Your task to perform on an android device: What's the weather going to be this weekend? Image 0: 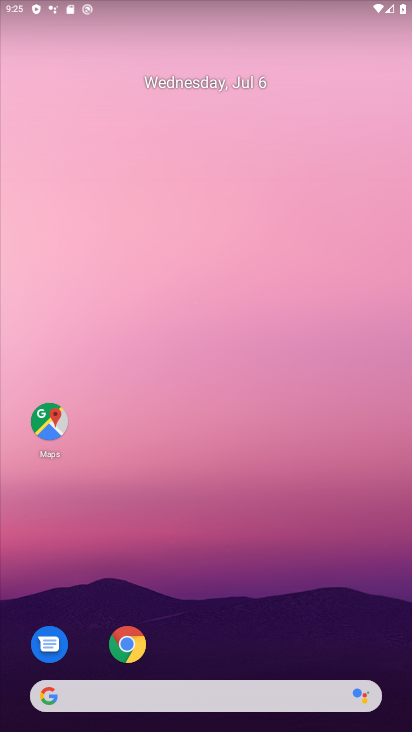
Step 0: drag from (231, 562) to (222, 237)
Your task to perform on an android device: What's the weather going to be this weekend? Image 1: 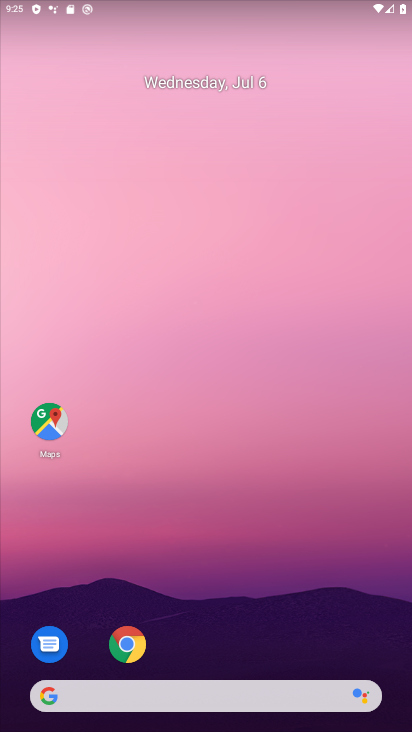
Step 1: drag from (193, 614) to (125, 0)
Your task to perform on an android device: What's the weather going to be this weekend? Image 2: 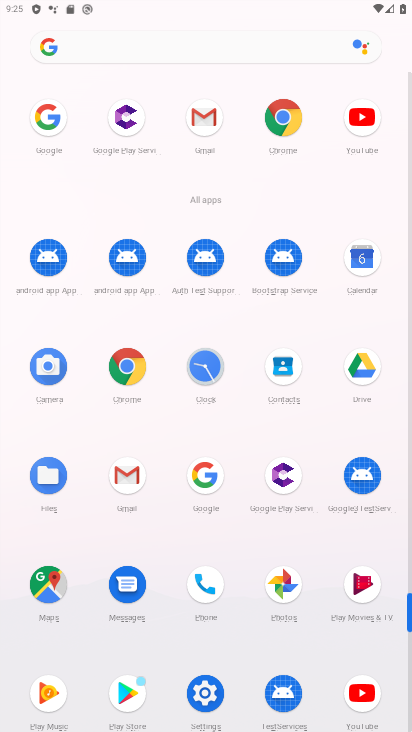
Step 2: drag from (255, 332) to (225, 416)
Your task to perform on an android device: What's the weather going to be this weekend? Image 3: 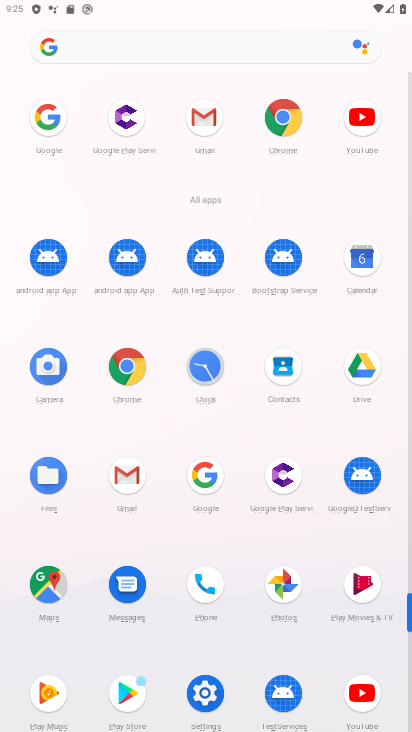
Step 3: click (205, 471)
Your task to perform on an android device: What's the weather going to be this weekend? Image 4: 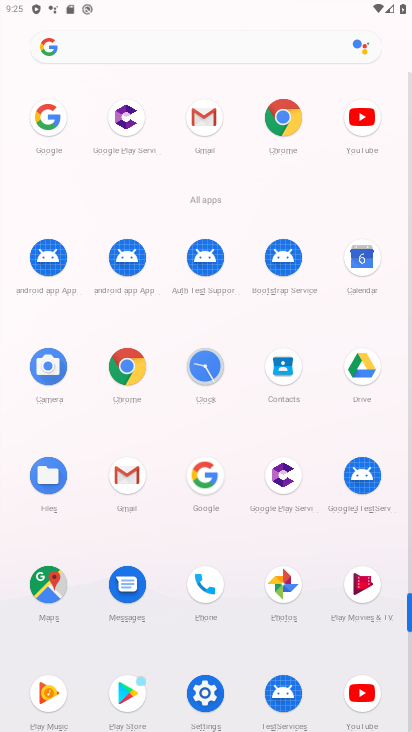
Step 4: click (209, 467)
Your task to perform on an android device: What's the weather going to be this weekend? Image 5: 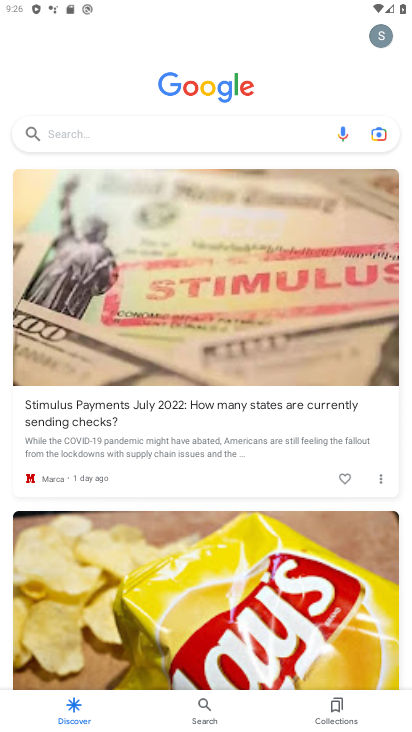
Step 5: click (113, 119)
Your task to perform on an android device: What's the weather going to be this weekend? Image 6: 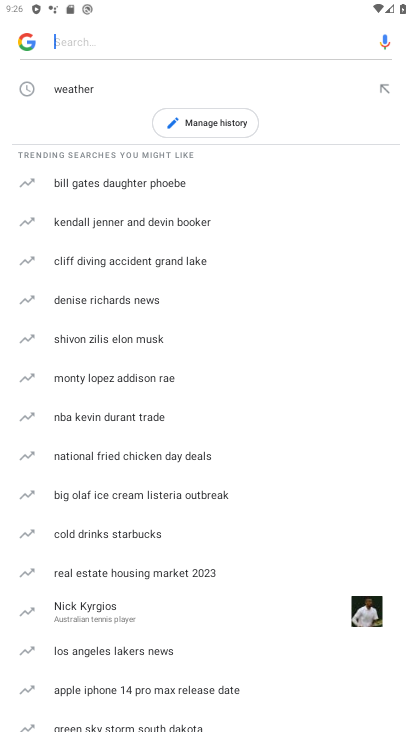
Step 6: click (113, 126)
Your task to perform on an android device: What's the weather going to be this weekend? Image 7: 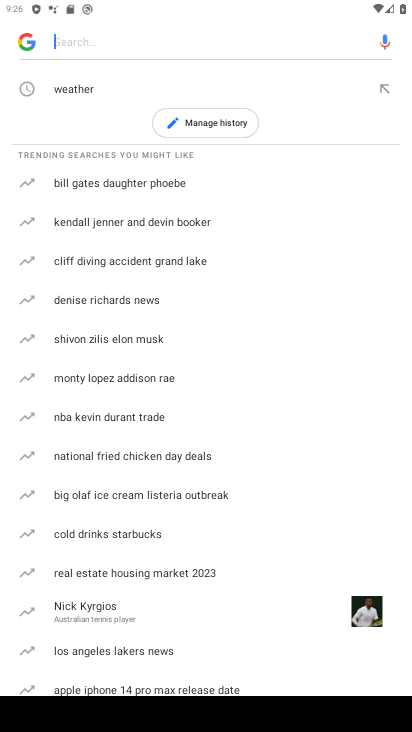
Step 7: click (82, 94)
Your task to perform on an android device: What's the weather going to be this weekend? Image 8: 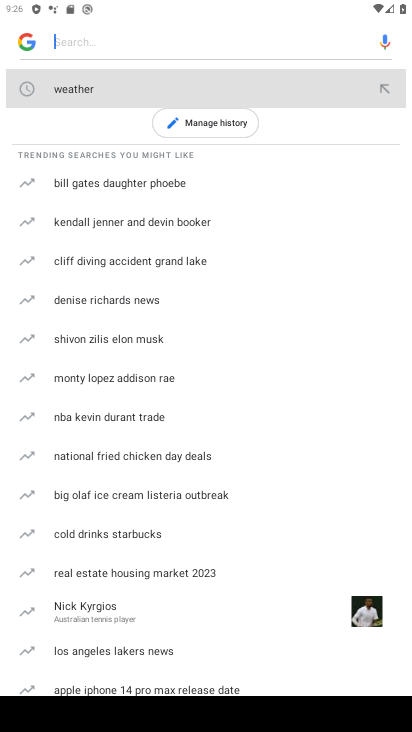
Step 8: click (81, 93)
Your task to perform on an android device: What's the weather going to be this weekend? Image 9: 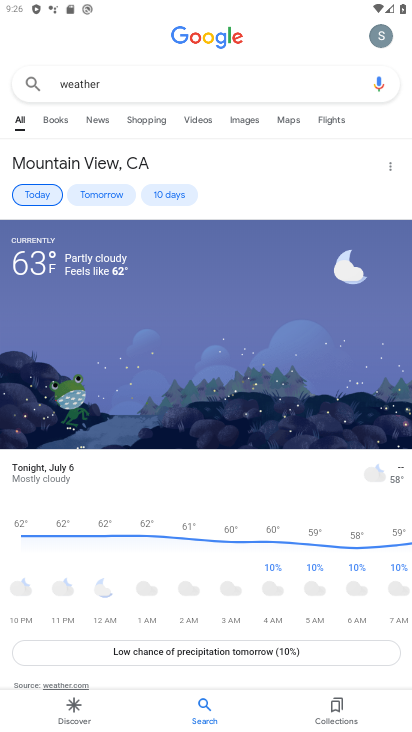
Step 9: click (169, 193)
Your task to perform on an android device: What's the weather going to be this weekend? Image 10: 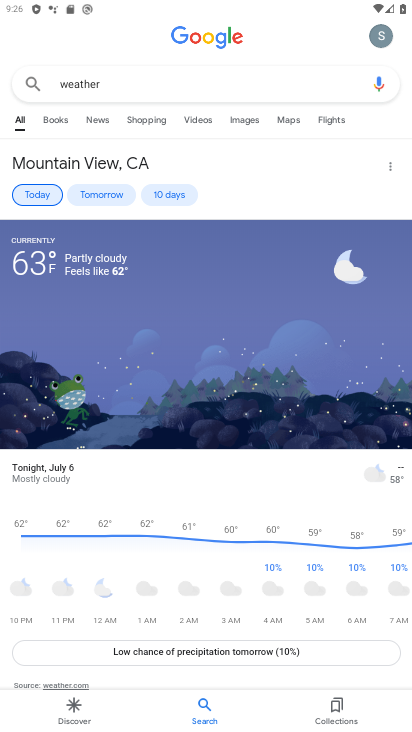
Step 10: click (179, 190)
Your task to perform on an android device: What's the weather going to be this weekend? Image 11: 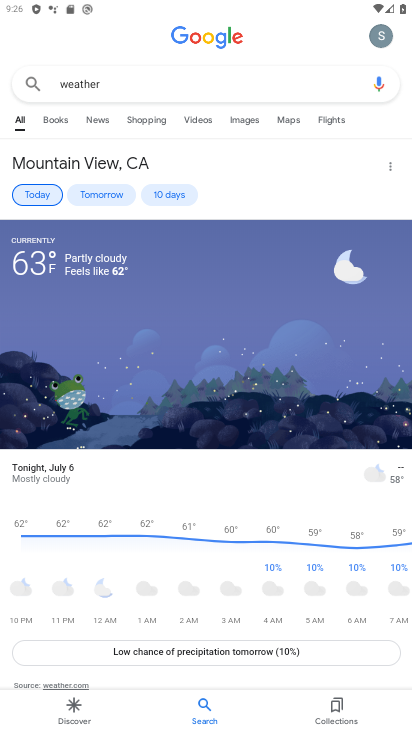
Step 11: click (179, 190)
Your task to perform on an android device: What's the weather going to be this weekend? Image 12: 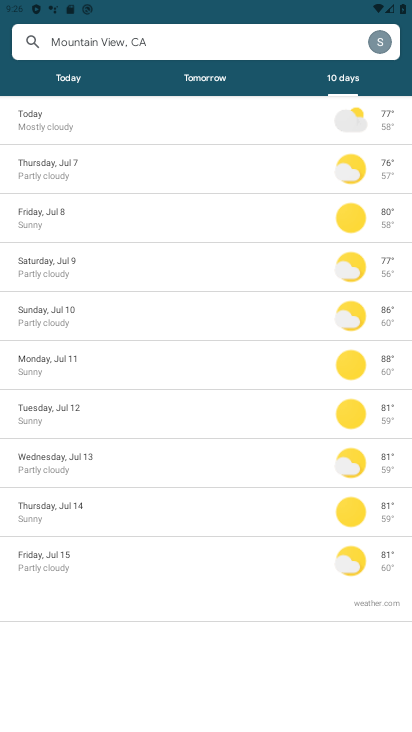
Step 12: task complete